Your task to perform on an android device: change the clock display to show seconds Image 0: 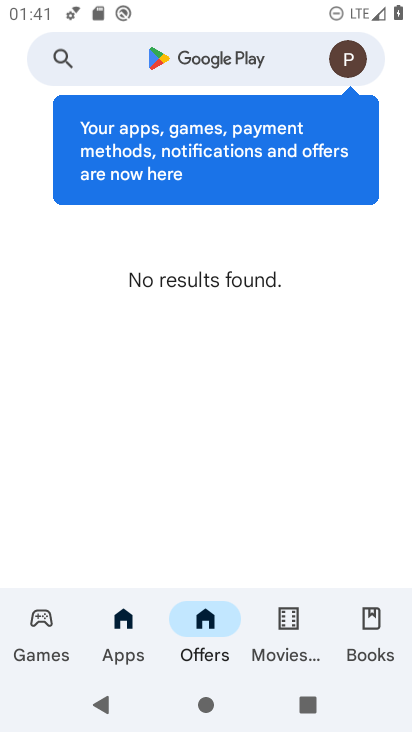
Step 0: press home button
Your task to perform on an android device: change the clock display to show seconds Image 1: 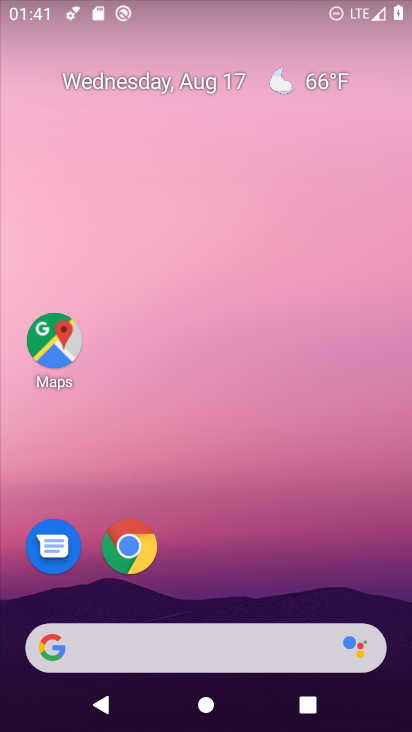
Step 1: drag from (231, 591) to (198, 125)
Your task to perform on an android device: change the clock display to show seconds Image 2: 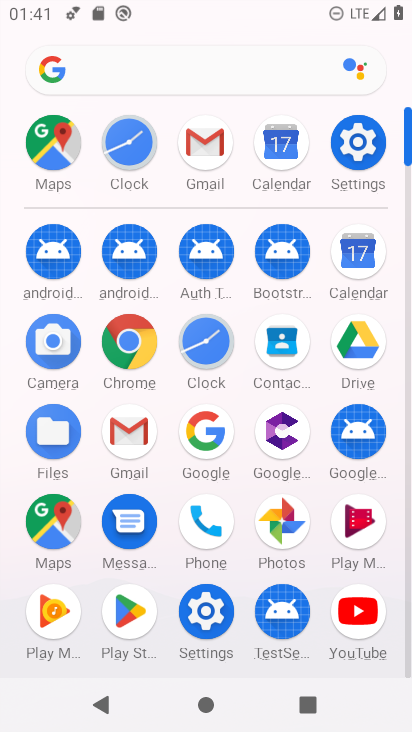
Step 2: click (205, 343)
Your task to perform on an android device: change the clock display to show seconds Image 3: 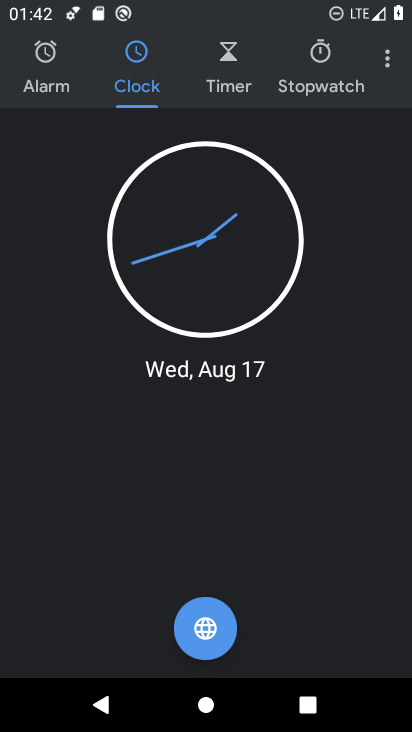
Step 3: click (387, 55)
Your task to perform on an android device: change the clock display to show seconds Image 4: 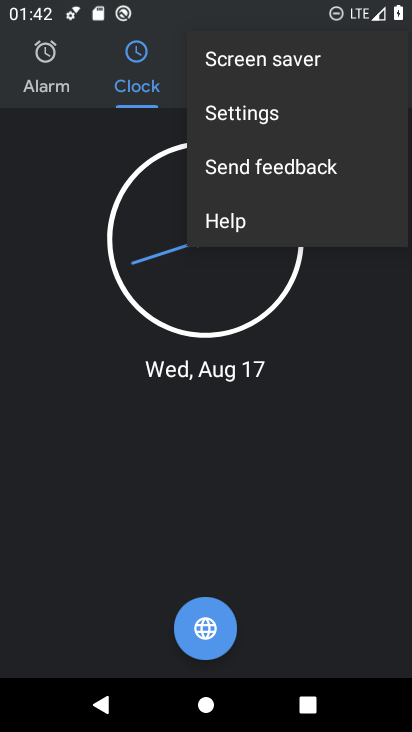
Step 4: click (267, 109)
Your task to perform on an android device: change the clock display to show seconds Image 5: 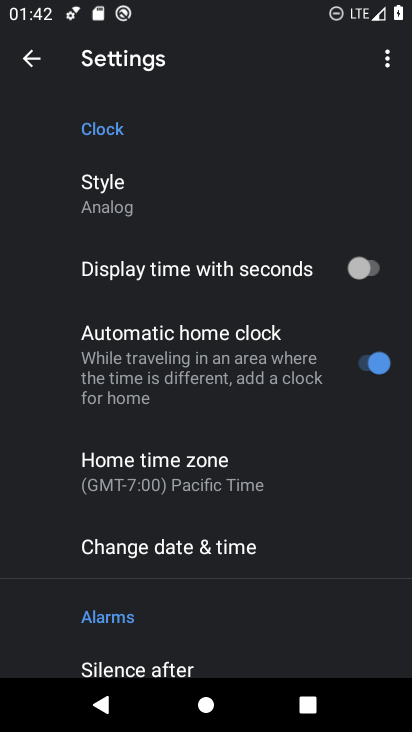
Step 5: click (112, 181)
Your task to perform on an android device: change the clock display to show seconds Image 6: 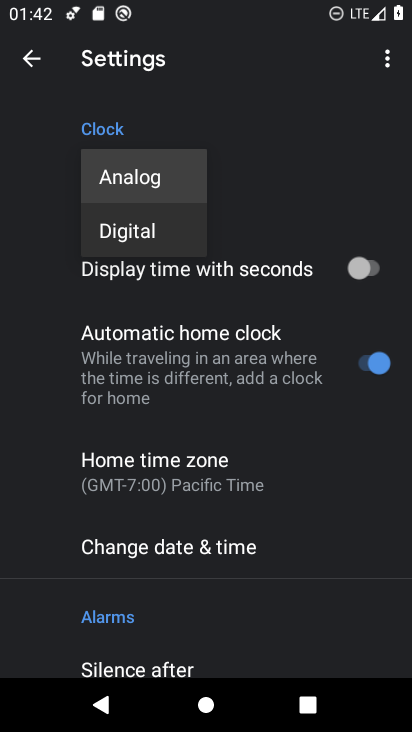
Step 6: click (362, 265)
Your task to perform on an android device: change the clock display to show seconds Image 7: 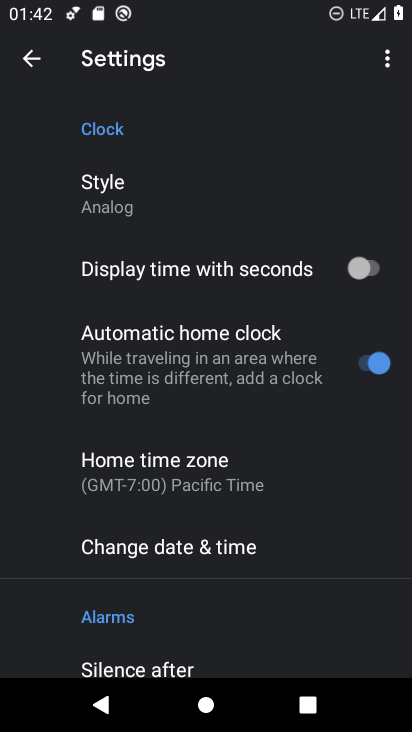
Step 7: click (355, 266)
Your task to perform on an android device: change the clock display to show seconds Image 8: 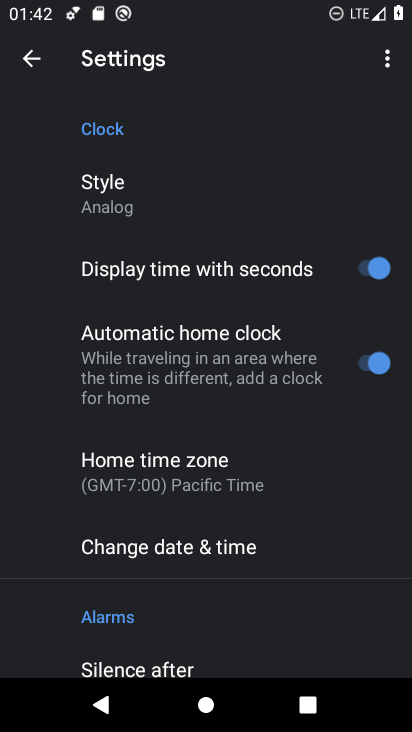
Step 8: task complete